Your task to perform on an android device: What's on my calendar tomorrow? Image 0: 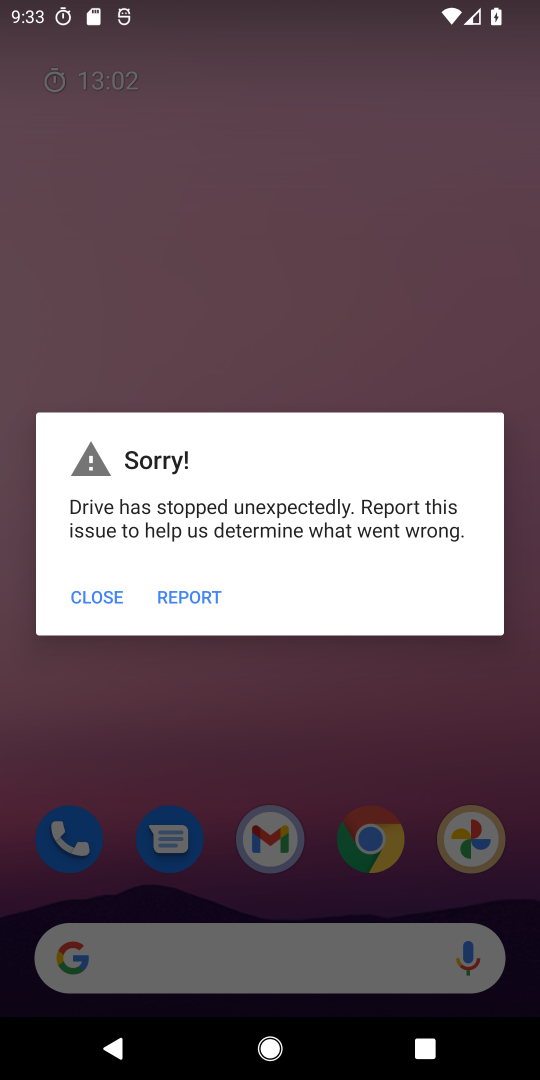
Step 0: press home button
Your task to perform on an android device: What's on my calendar tomorrow? Image 1: 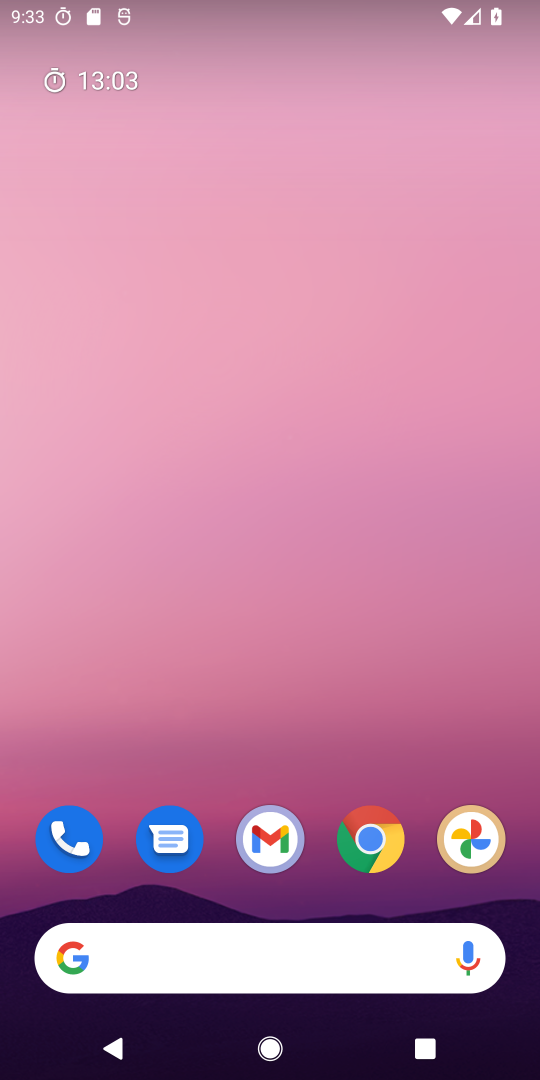
Step 1: drag from (288, 786) to (392, 72)
Your task to perform on an android device: What's on my calendar tomorrow? Image 2: 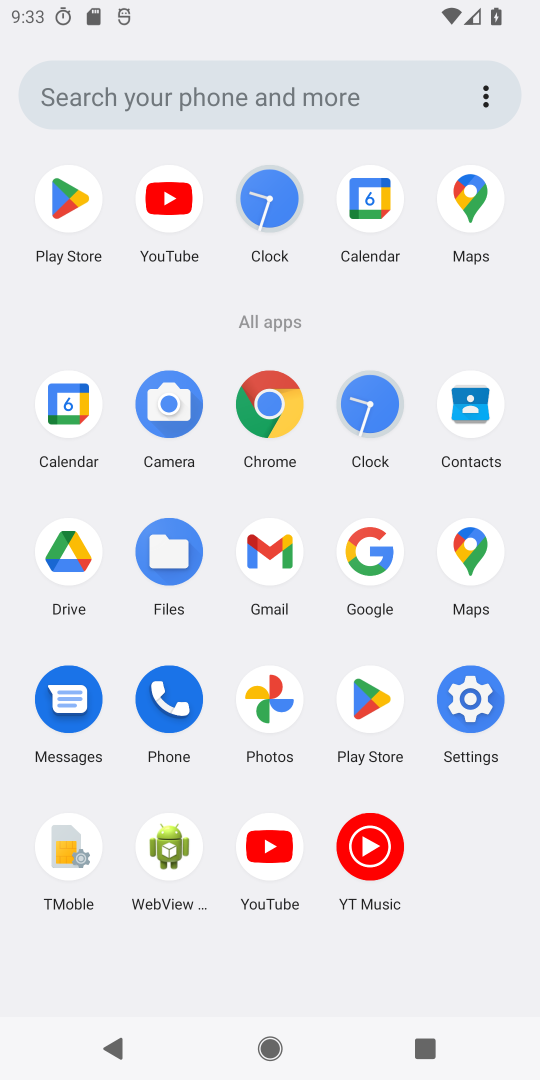
Step 2: click (67, 399)
Your task to perform on an android device: What's on my calendar tomorrow? Image 3: 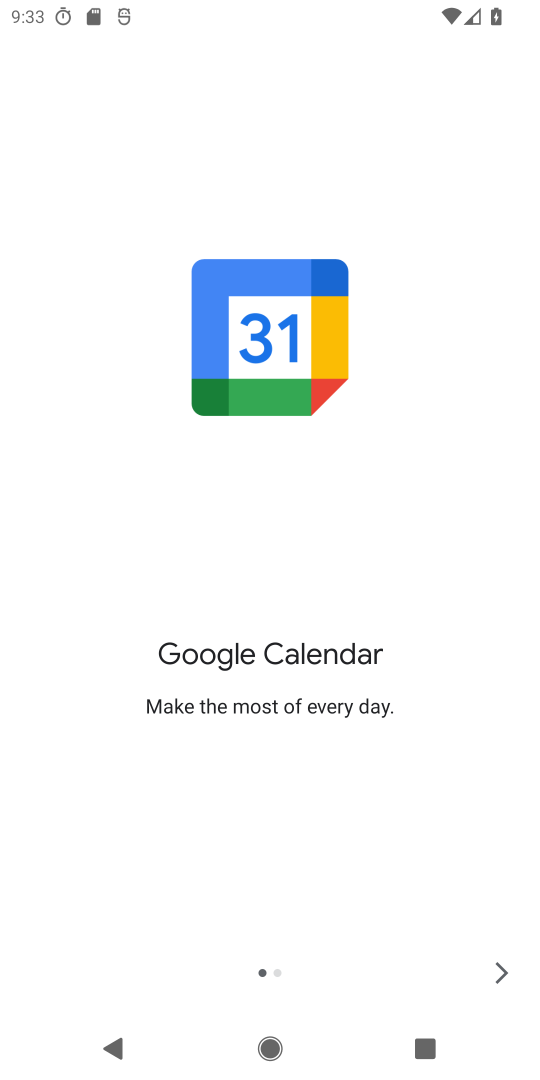
Step 3: click (496, 969)
Your task to perform on an android device: What's on my calendar tomorrow? Image 4: 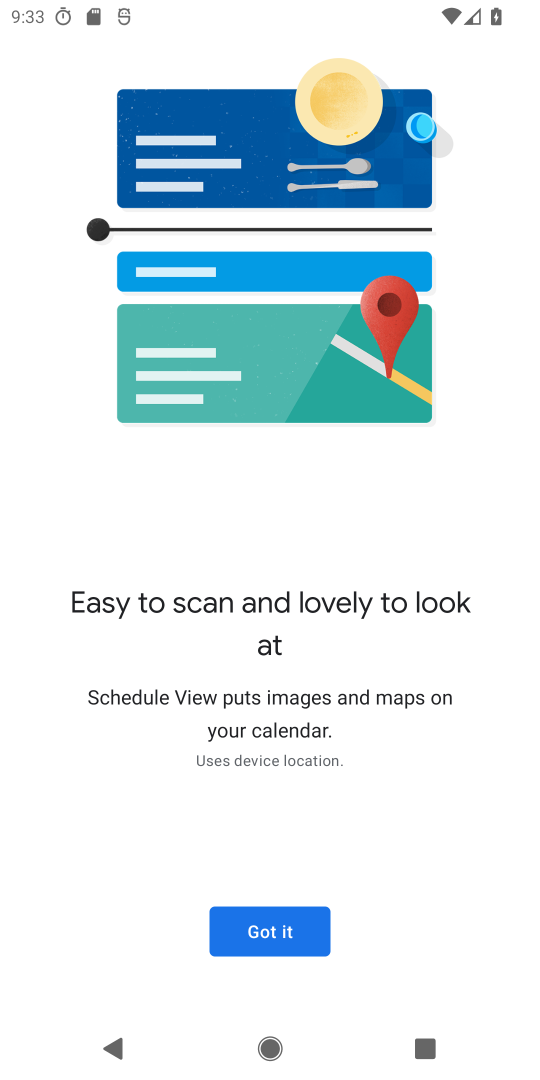
Step 4: click (265, 924)
Your task to perform on an android device: What's on my calendar tomorrow? Image 5: 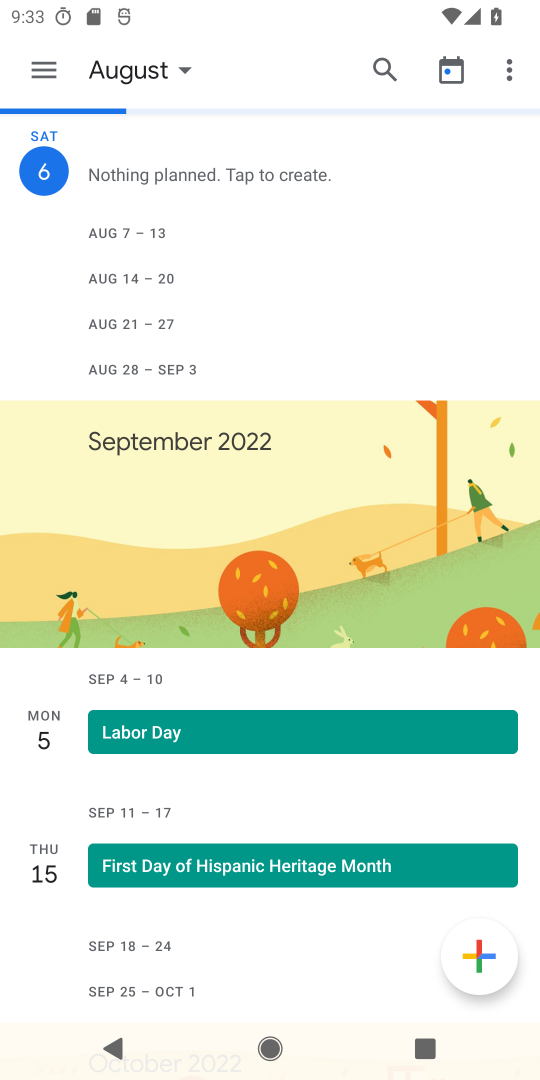
Step 5: click (261, 941)
Your task to perform on an android device: What's on my calendar tomorrow? Image 6: 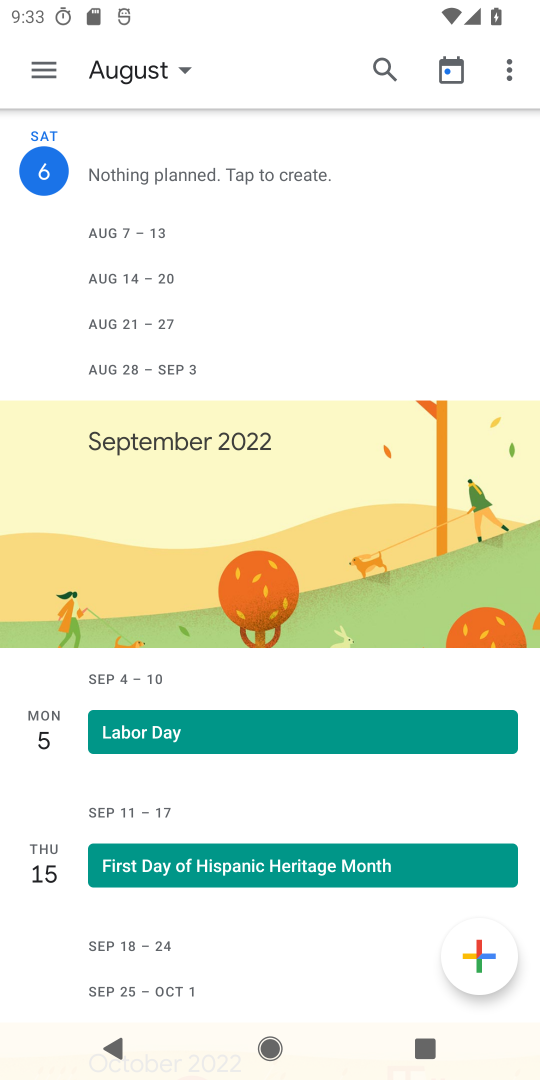
Step 6: click (52, 72)
Your task to perform on an android device: What's on my calendar tomorrow? Image 7: 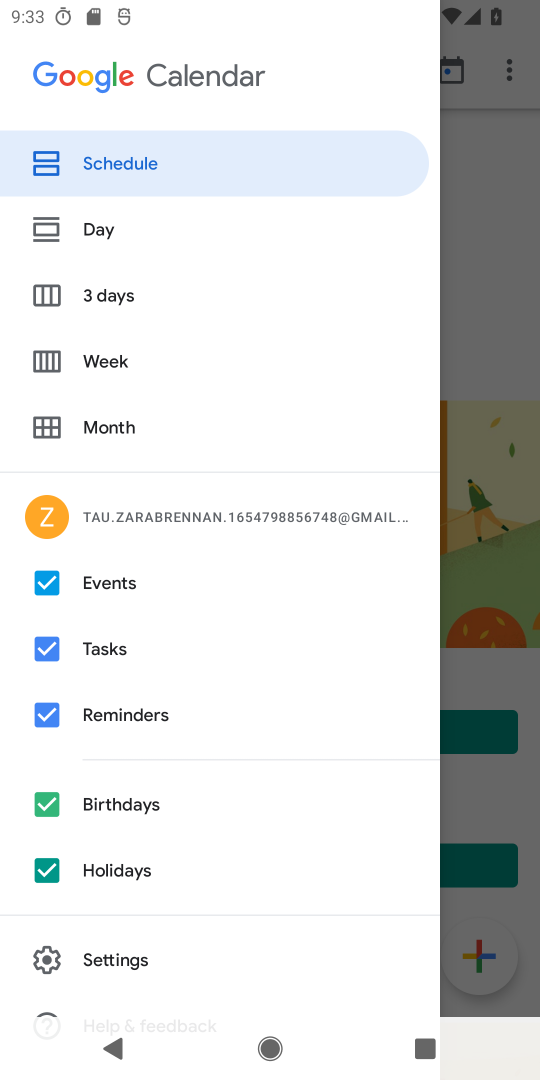
Step 7: click (95, 226)
Your task to perform on an android device: What's on my calendar tomorrow? Image 8: 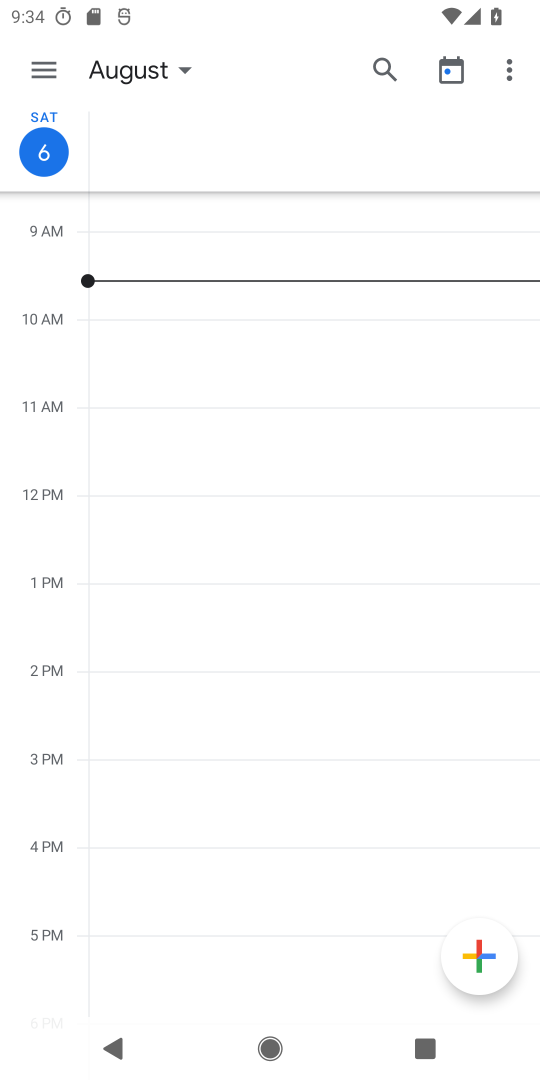
Step 8: click (178, 59)
Your task to perform on an android device: What's on my calendar tomorrow? Image 9: 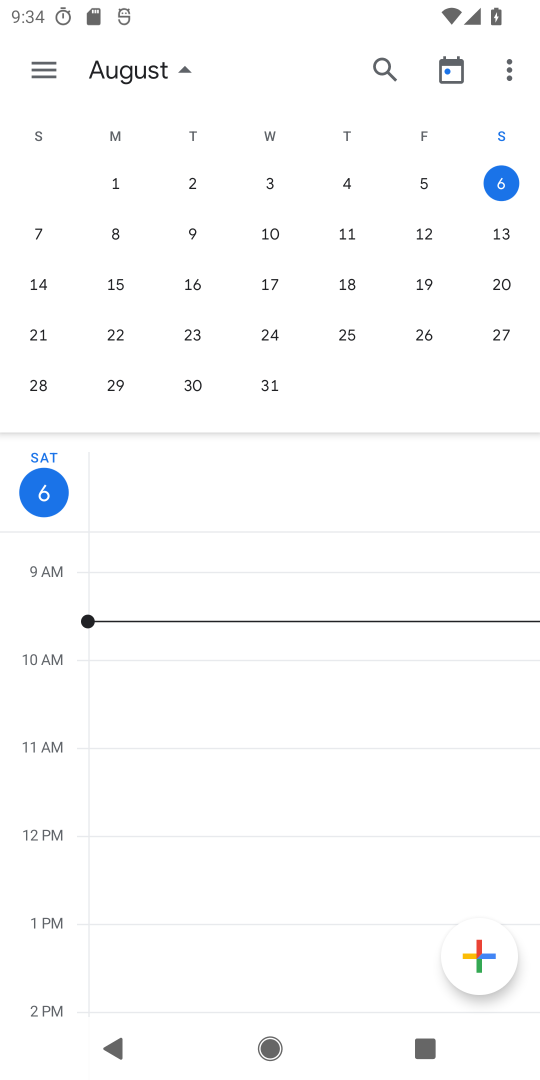
Step 9: click (42, 234)
Your task to perform on an android device: What's on my calendar tomorrow? Image 10: 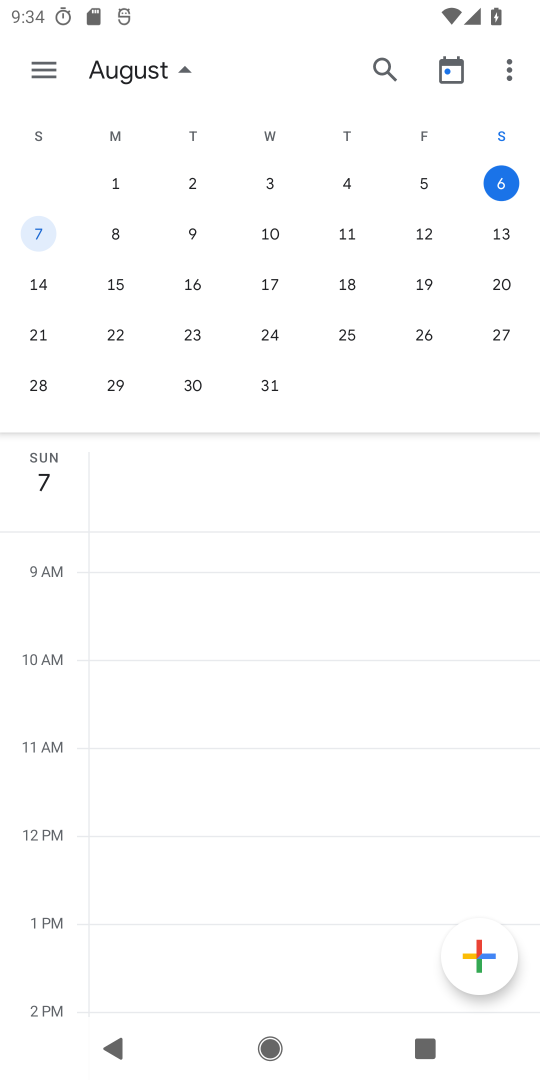
Step 10: click (184, 61)
Your task to perform on an android device: What's on my calendar tomorrow? Image 11: 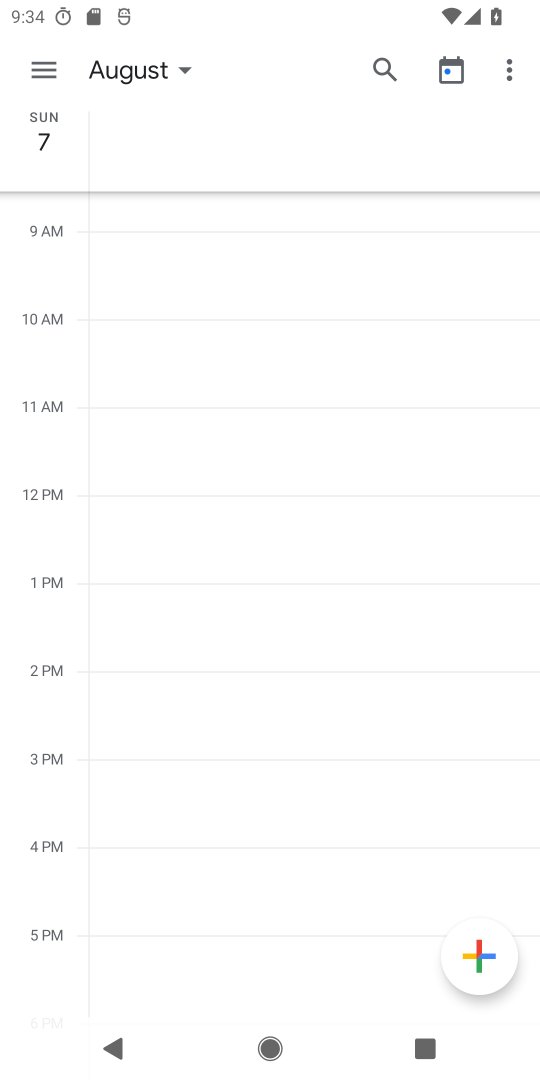
Step 11: task complete